Your task to perform on an android device: toggle priority inbox in the gmail app Image 0: 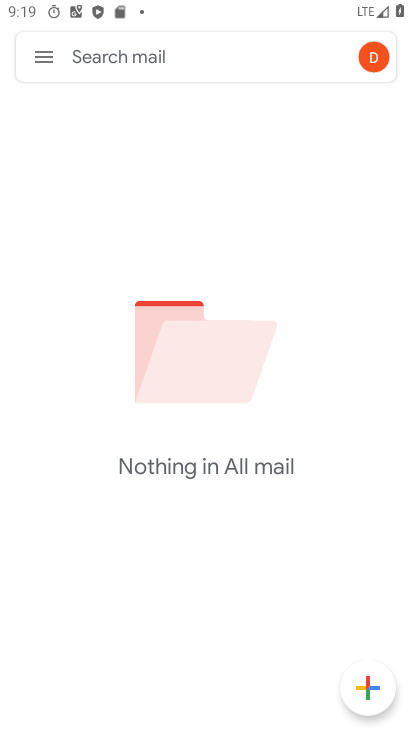
Step 0: click (35, 58)
Your task to perform on an android device: toggle priority inbox in the gmail app Image 1: 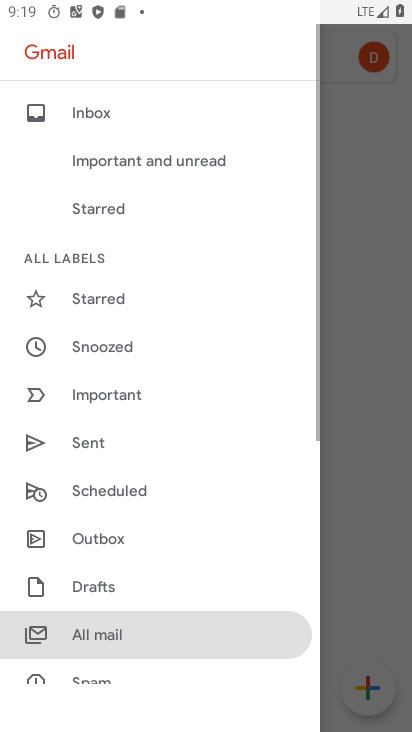
Step 1: drag from (158, 622) to (239, 160)
Your task to perform on an android device: toggle priority inbox in the gmail app Image 2: 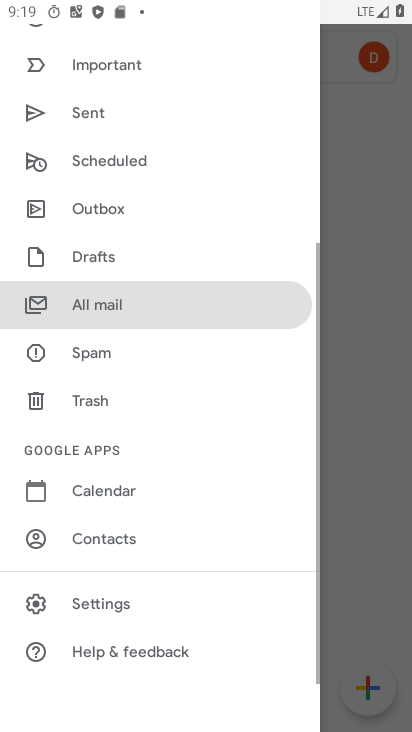
Step 2: click (114, 606)
Your task to perform on an android device: toggle priority inbox in the gmail app Image 3: 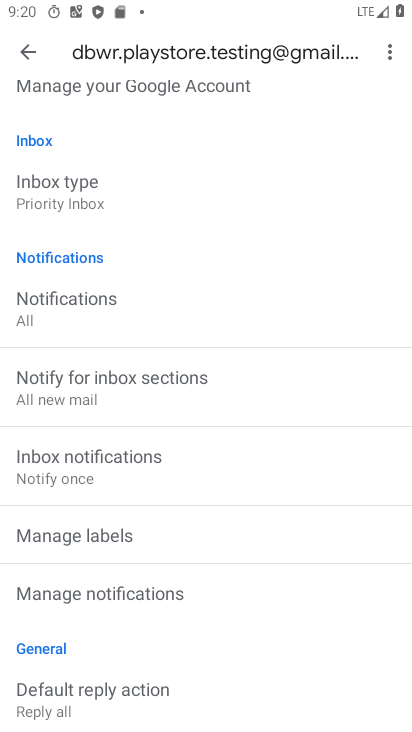
Step 3: click (109, 199)
Your task to perform on an android device: toggle priority inbox in the gmail app Image 4: 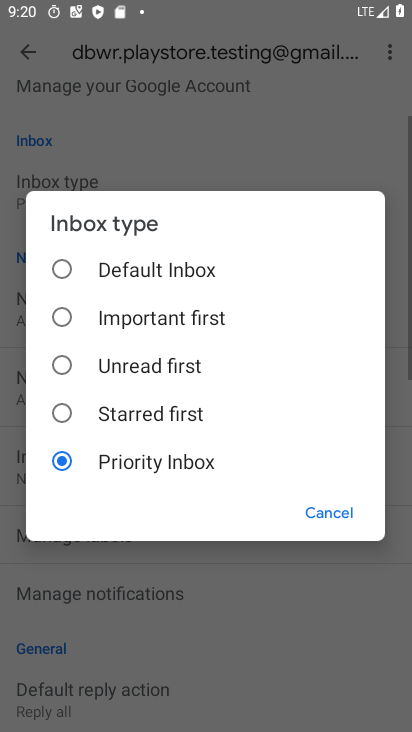
Step 4: click (130, 266)
Your task to perform on an android device: toggle priority inbox in the gmail app Image 5: 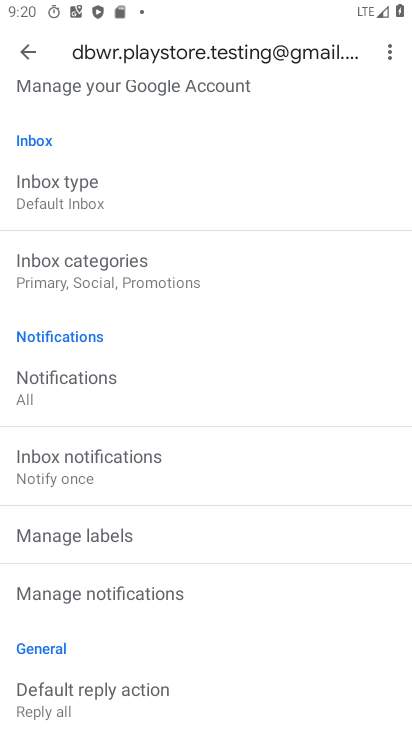
Step 5: task complete